Your task to perform on an android device: open wifi settings Image 0: 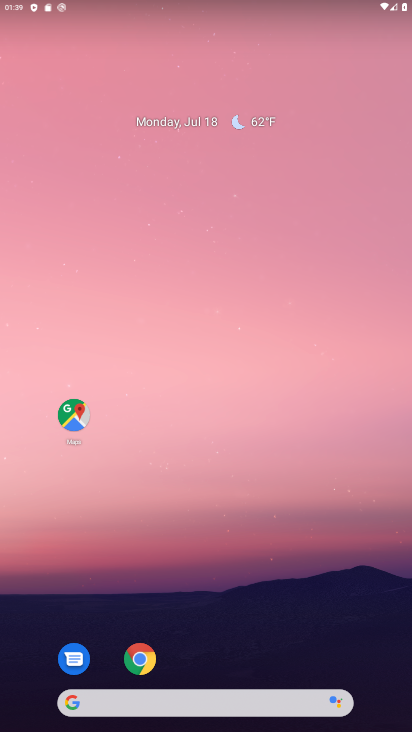
Step 0: drag from (322, 596) to (284, 148)
Your task to perform on an android device: open wifi settings Image 1: 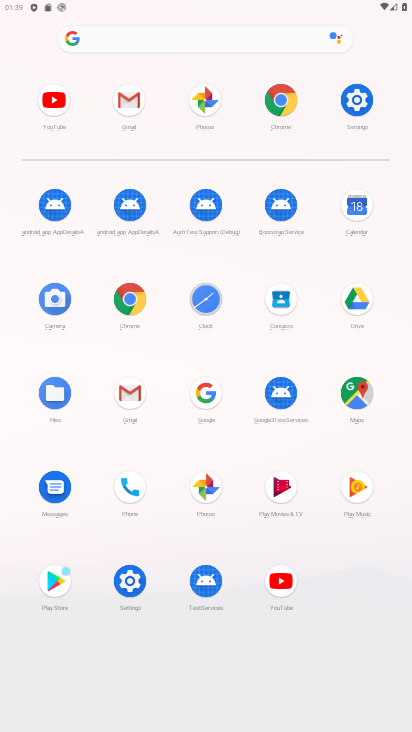
Step 1: click (360, 95)
Your task to perform on an android device: open wifi settings Image 2: 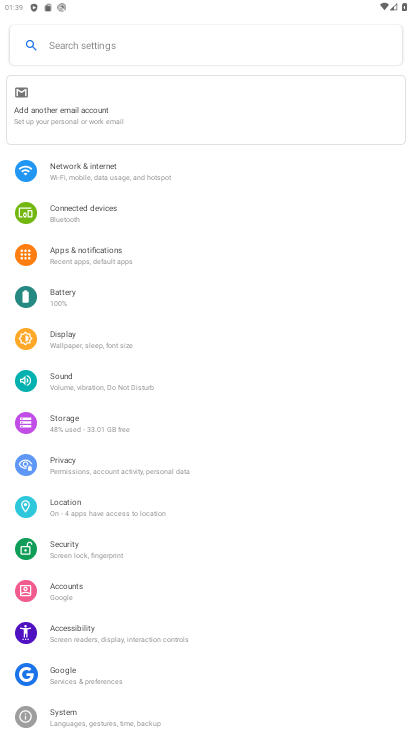
Step 2: click (130, 170)
Your task to perform on an android device: open wifi settings Image 3: 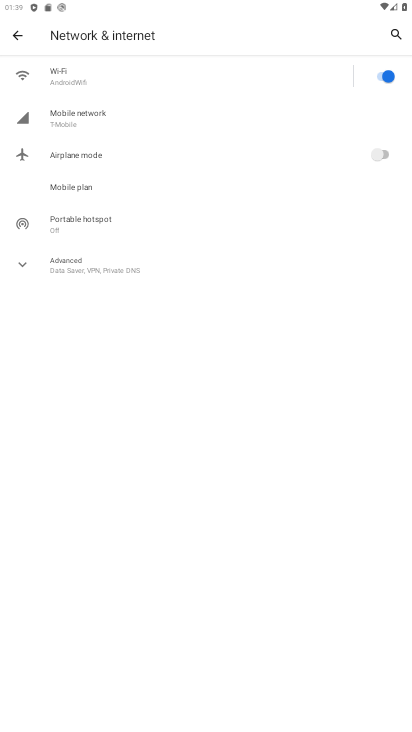
Step 3: click (106, 82)
Your task to perform on an android device: open wifi settings Image 4: 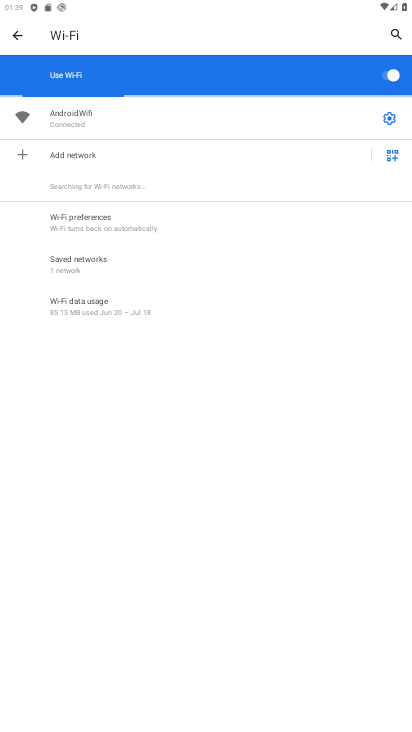
Step 4: click (396, 112)
Your task to perform on an android device: open wifi settings Image 5: 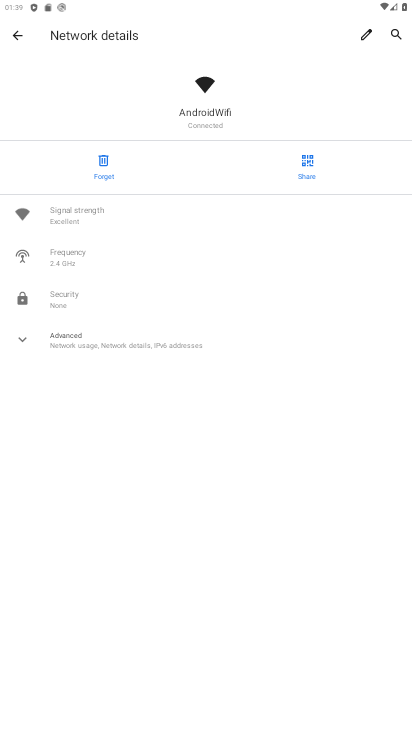
Step 5: task complete